Your task to perform on an android device: clear history in the chrome app Image 0: 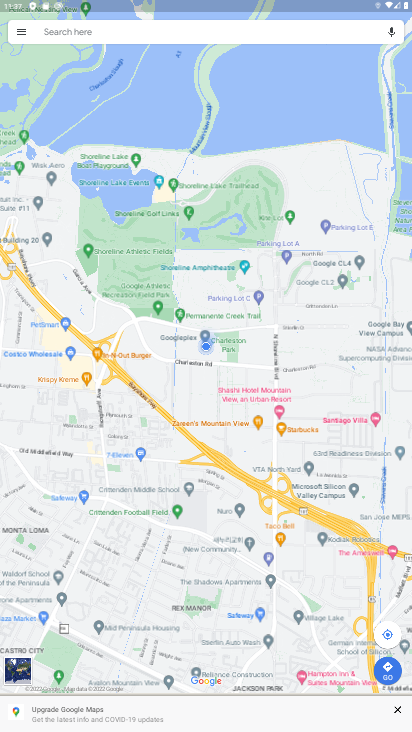
Step 0: press home button
Your task to perform on an android device: clear history in the chrome app Image 1: 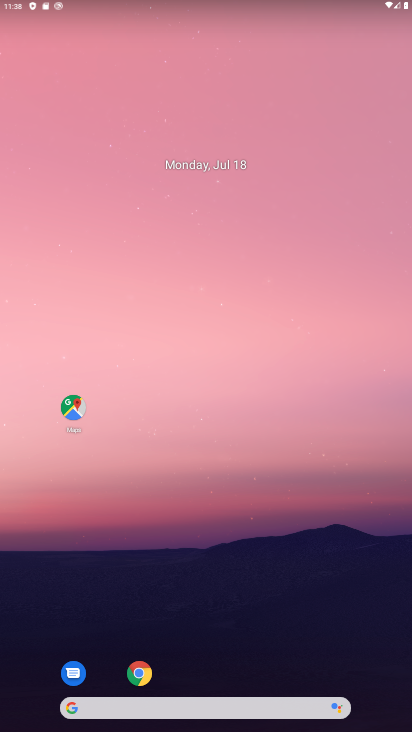
Step 1: click (147, 671)
Your task to perform on an android device: clear history in the chrome app Image 2: 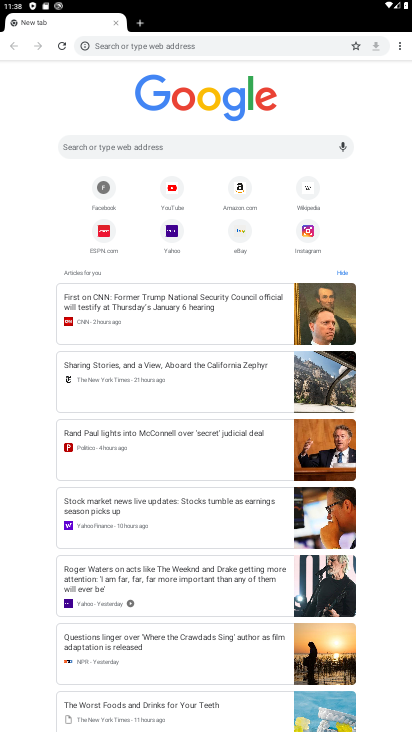
Step 2: click (396, 42)
Your task to perform on an android device: clear history in the chrome app Image 3: 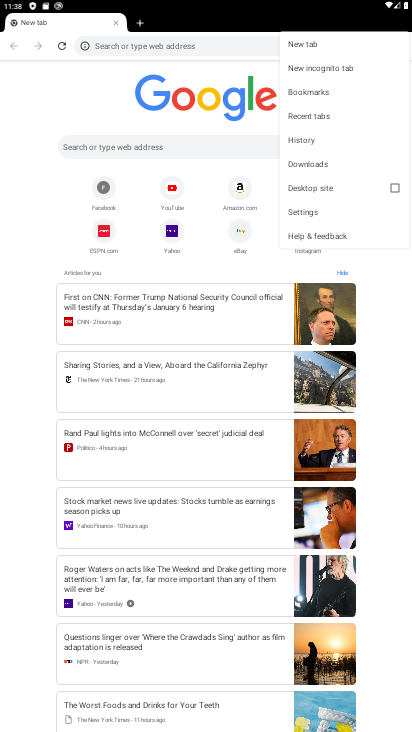
Step 3: click (314, 137)
Your task to perform on an android device: clear history in the chrome app Image 4: 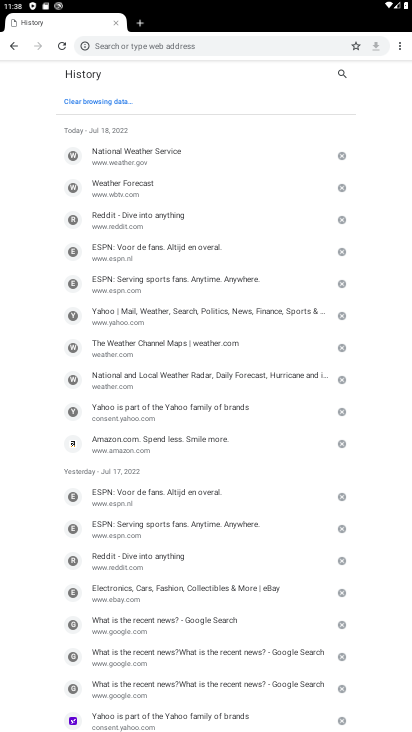
Step 4: click (103, 100)
Your task to perform on an android device: clear history in the chrome app Image 5: 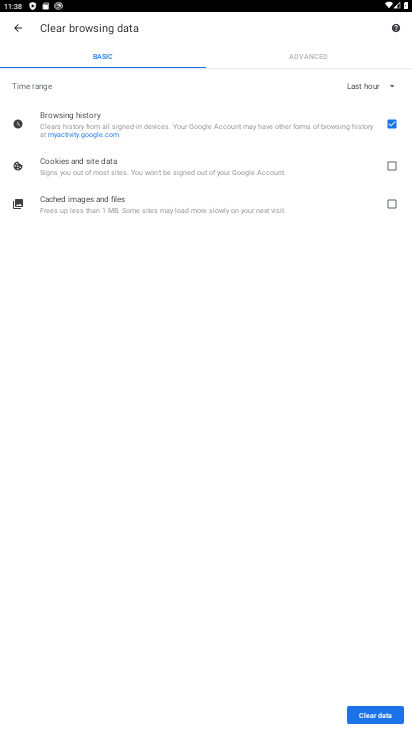
Step 5: click (385, 162)
Your task to perform on an android device: clear history in the chrome app Image 6: 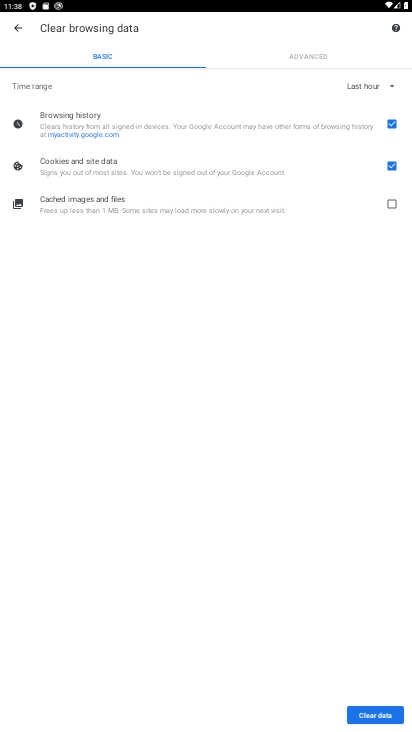
Step 6: click (392, 203)
Your task to perform on an android device: clear history in the chrome app Image 7: 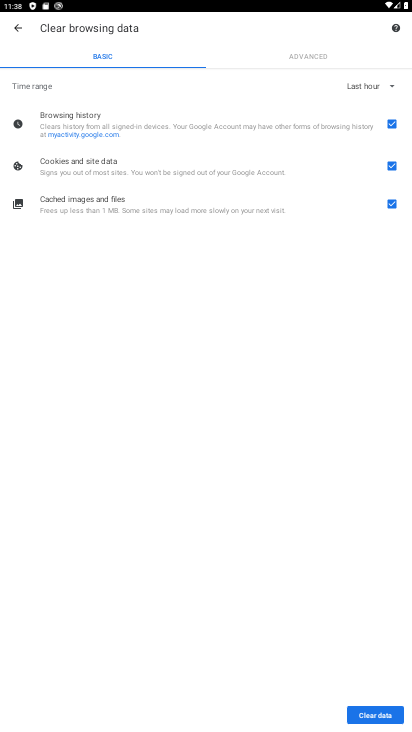
Step 7: click (382, 710)
Your task to perform on an android device: clear history in the chrome app Image 8: 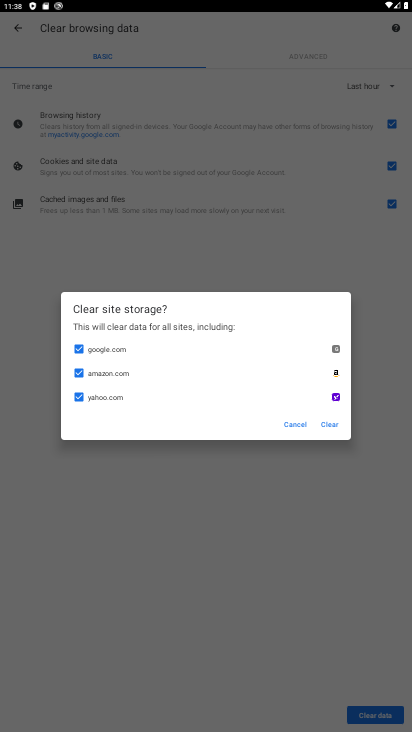
Step 8: click (326, 427)
Your task to perform on an android device: clear history in the chrome app Image 9: 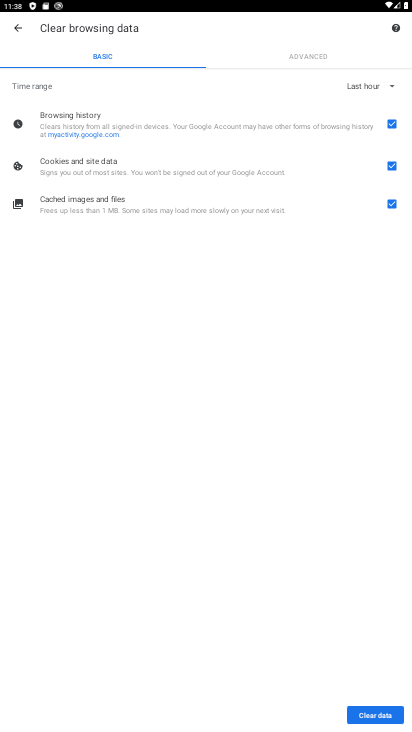
Step 9: task complete